Your task to perform on an android device: find photos in the google photos app Image 0: 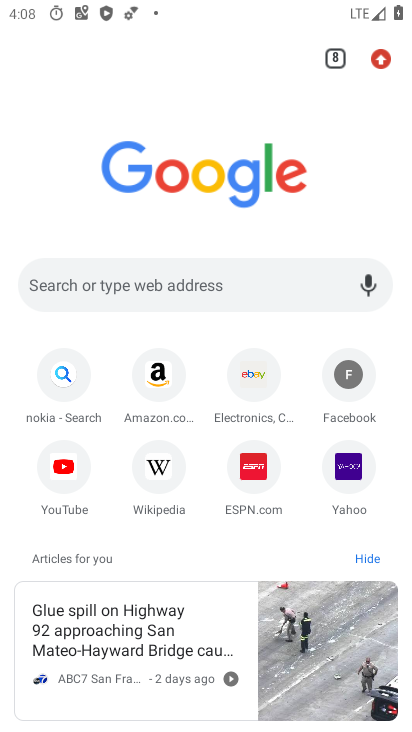
Step 0: press home button
Your task to perform on an android device: find photos in the google photos app Image 1: 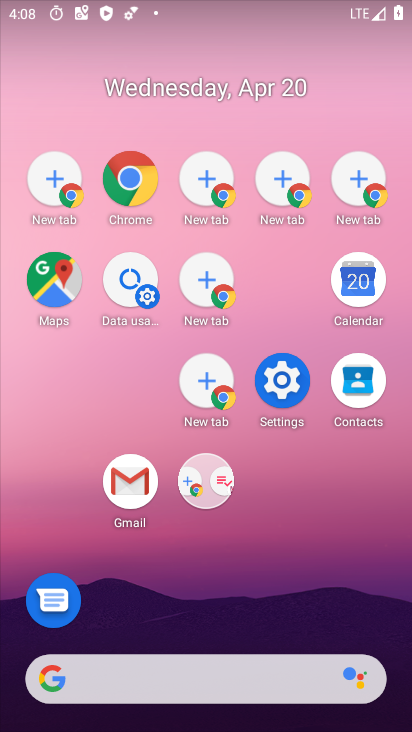
Step 1: drag from (251, 666) to (177, 202)
Your task to perform on an android device: find photos in the google photos app Image 2: 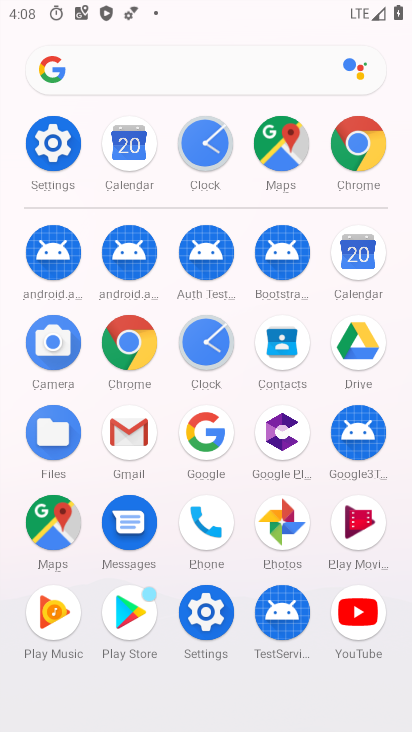
Step 2: click (293, 525)
Your task to perform on an android device: find photos in the google photos app Image 3: 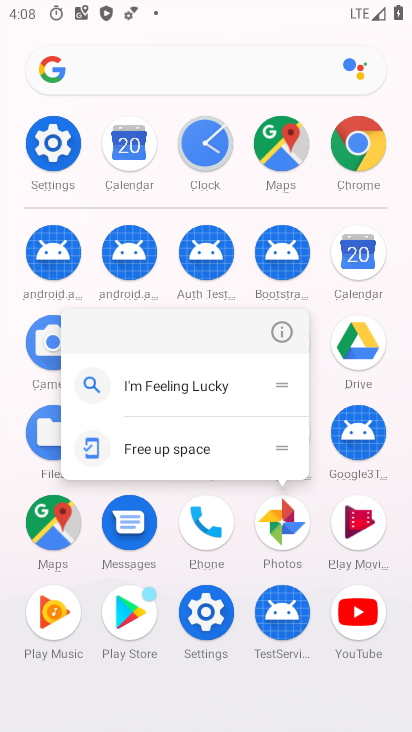
Step 3: click (292, 525)
Your task to perform on an android device: find photos in the google photos app Image 4: 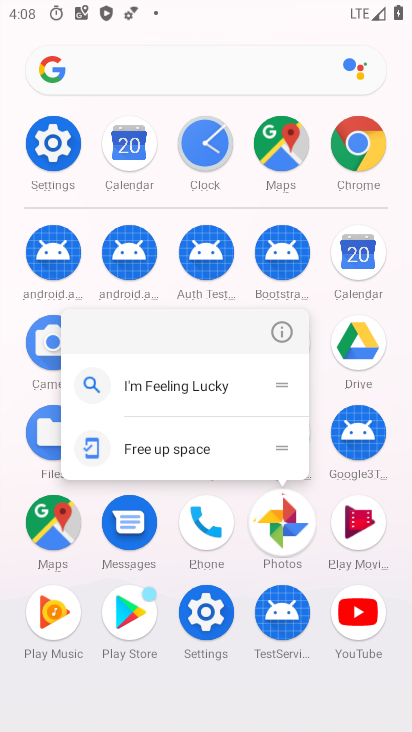
Step 4: drag from (236, 460) to (254, 497)
Your task to perform on an android device: find photos in the google photos app Image 5: 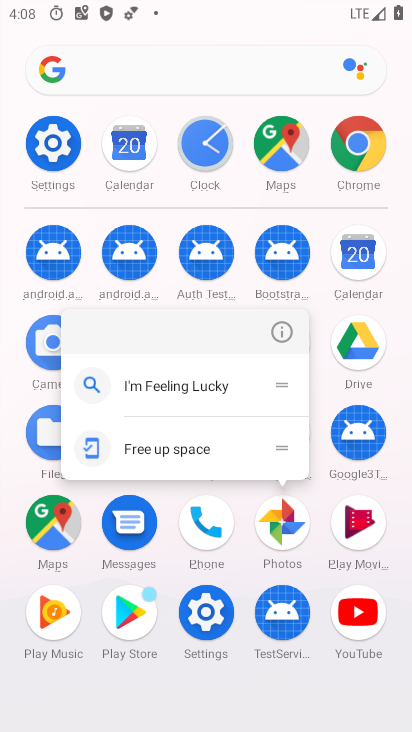
Step 5: click (277, 501)
Your task to perform on an android device: find photos in the google photos app Image 6: 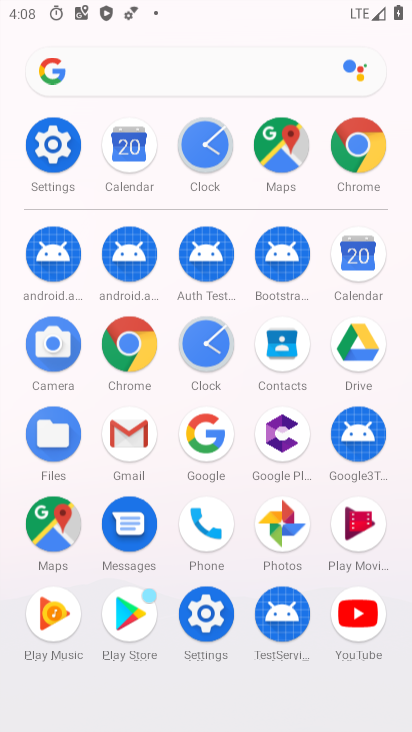
Step 6: drag from (286, 513) to (264, 540)
Your task to perform on an android device: find photos in the google photos app Image 7: 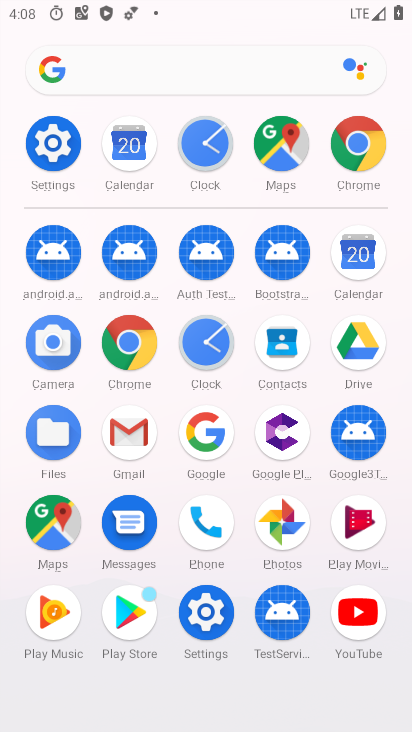
Step 7: click (284, 514)
Your task to perform on an android device: find photos in the google photos app Image 8: 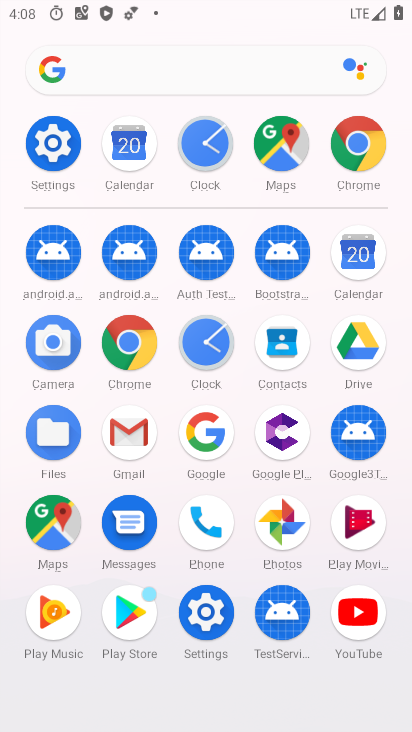
Step 8: click (284, 514)
Your task to perform on an android device: find photos in the google photos app Image 9: 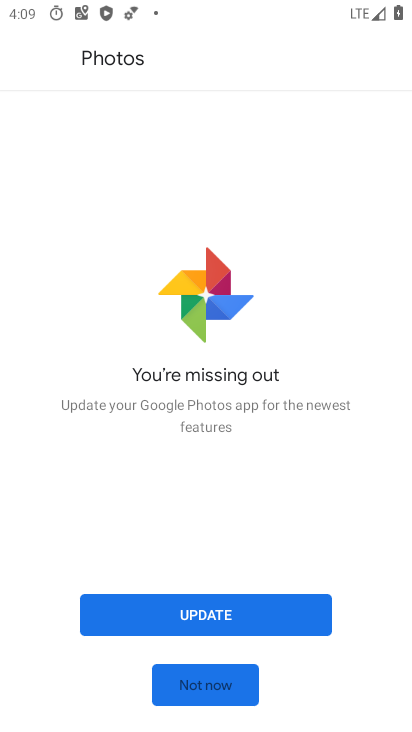
Step 9: task complete